Your task to perform on an android device: open app "Expedia: Hotels, Flights & Car" Image 0: 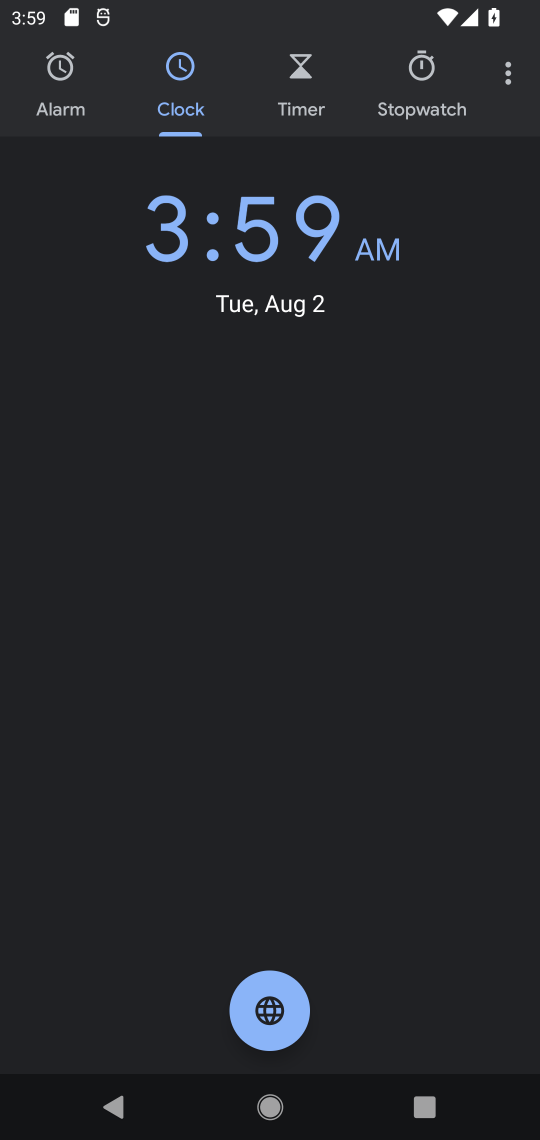
Step 0: press home button
Your task to perform on an android device: open app "Expedia: Hotels, Flights & Car" Image 1: 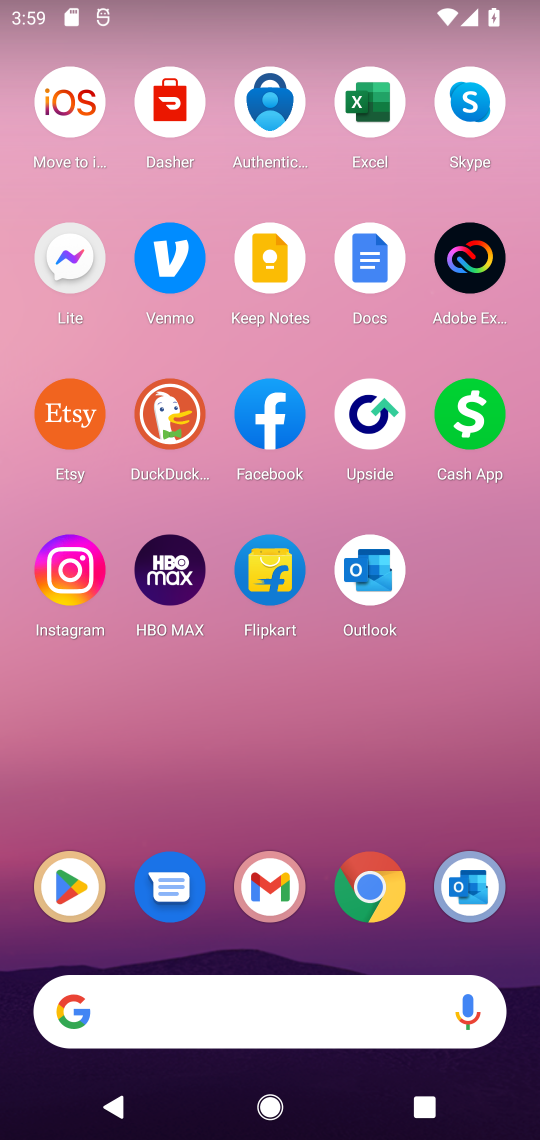
Step 1: click (54, 891)
Your task to perform on an android device: open app "Expedia: Hotels, Flights & Car" Image 2: 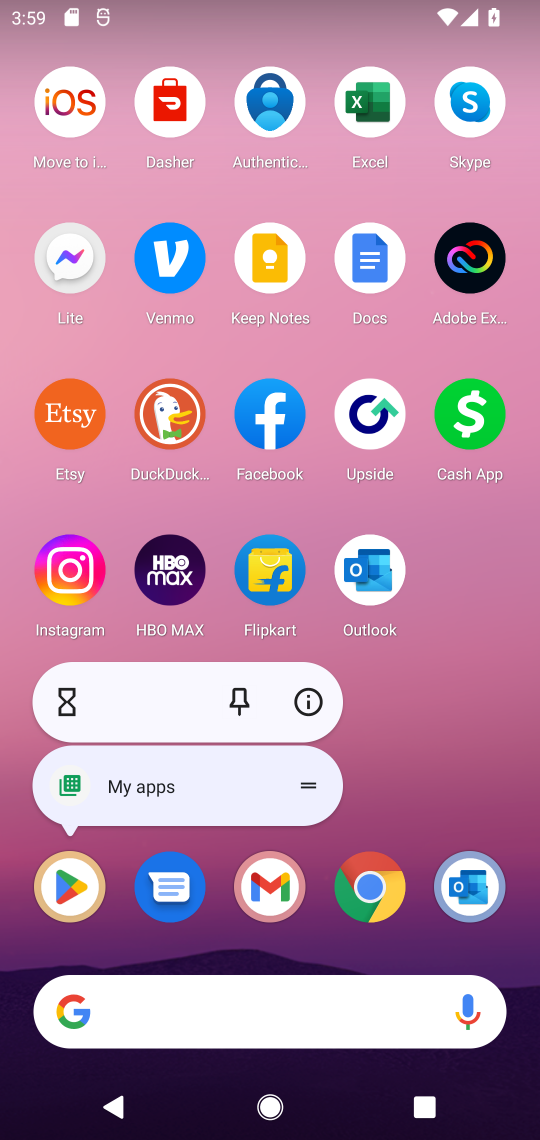
Step 2: click (65, 868)
Your task to perform on an android device: open app "Expedia: Hotels, Flights & Car" Image 3: 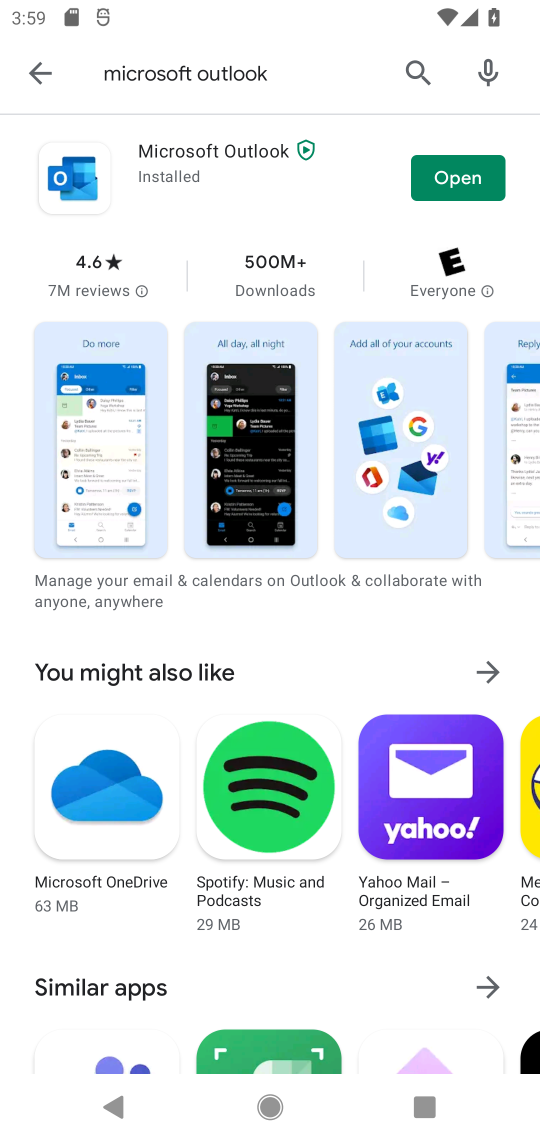
Step 3: click (45, 72)
Your task to perform on an android device: open app "Expedia: Hotels, Flights & Car" Image 4: 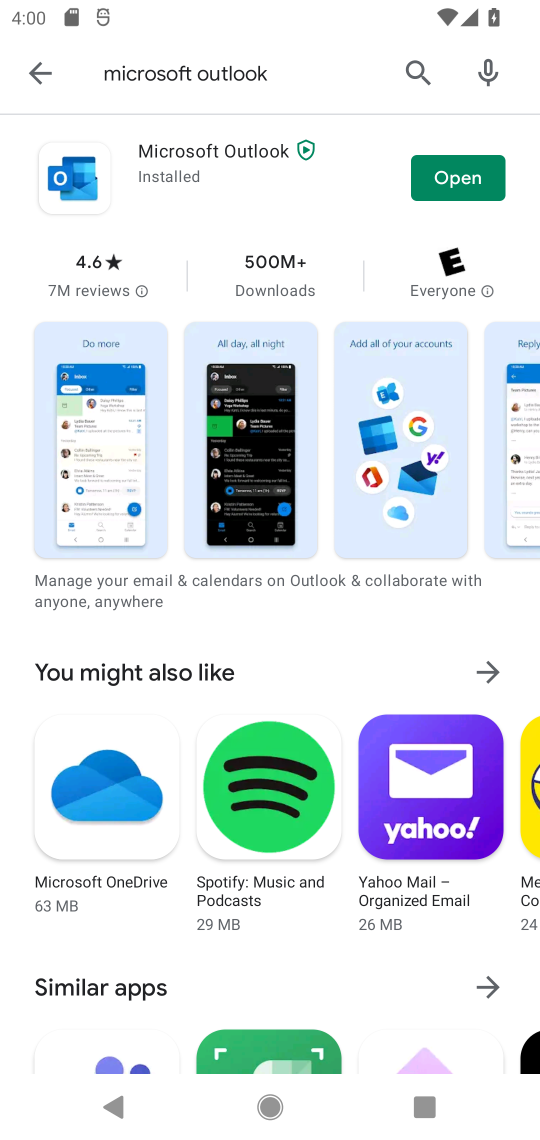
Step 4: click (38, 68)
Your task to perform on an android device: open app "Expedia: Hotels, Flights & Car" Image 5: 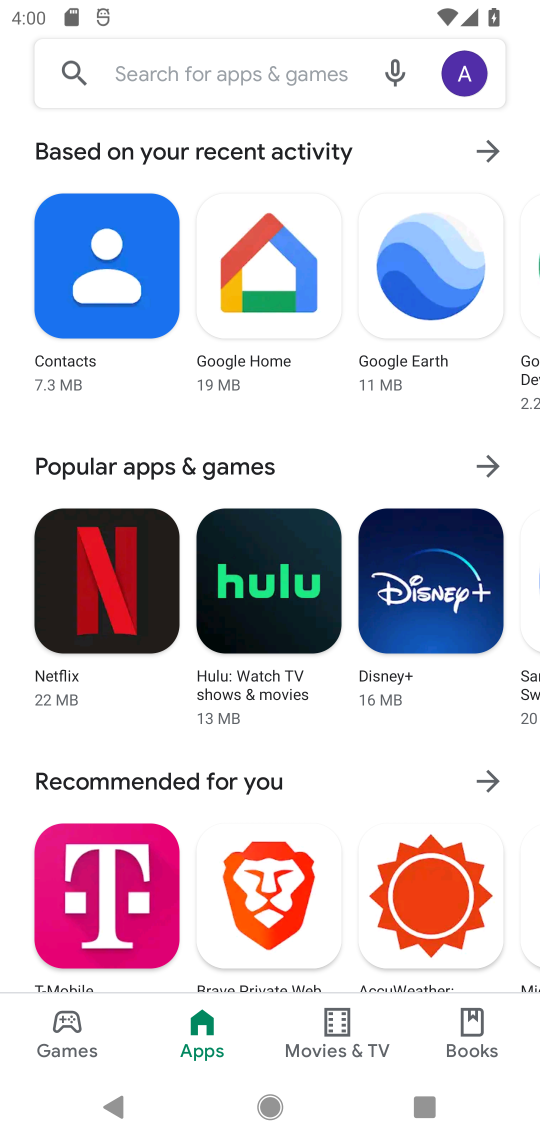
Step 5: click (161, 72)
Your task to perform on an android device: open app "Expedia: Hotels, Flights & Car" Image 6: 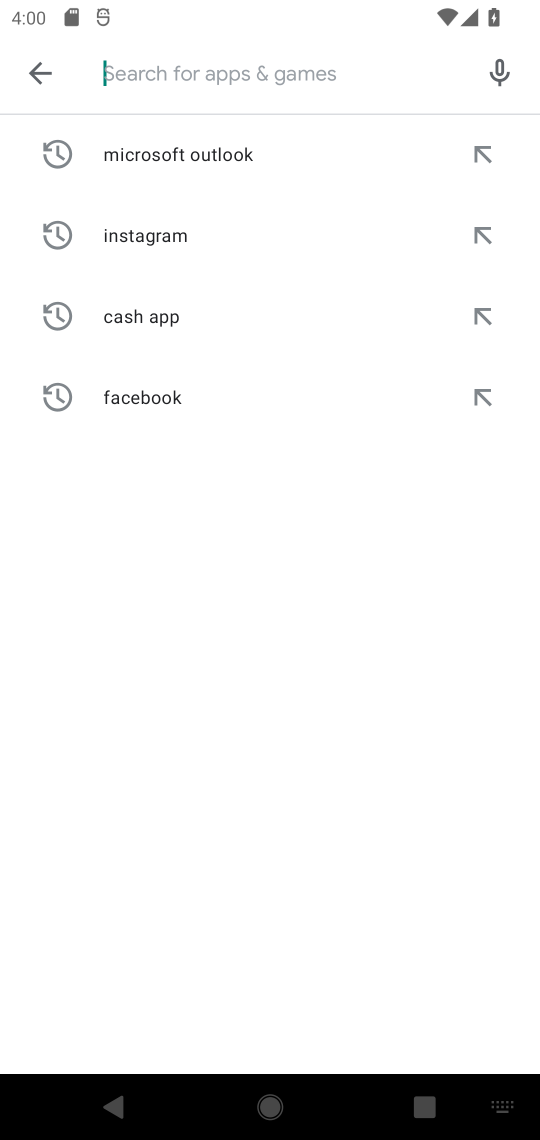
Step 6: type "Expedia: Hotels, Flights & Car"
Your task to perform on an android device: open app "Expedia: Hotels, Flights & Car" Image 7: 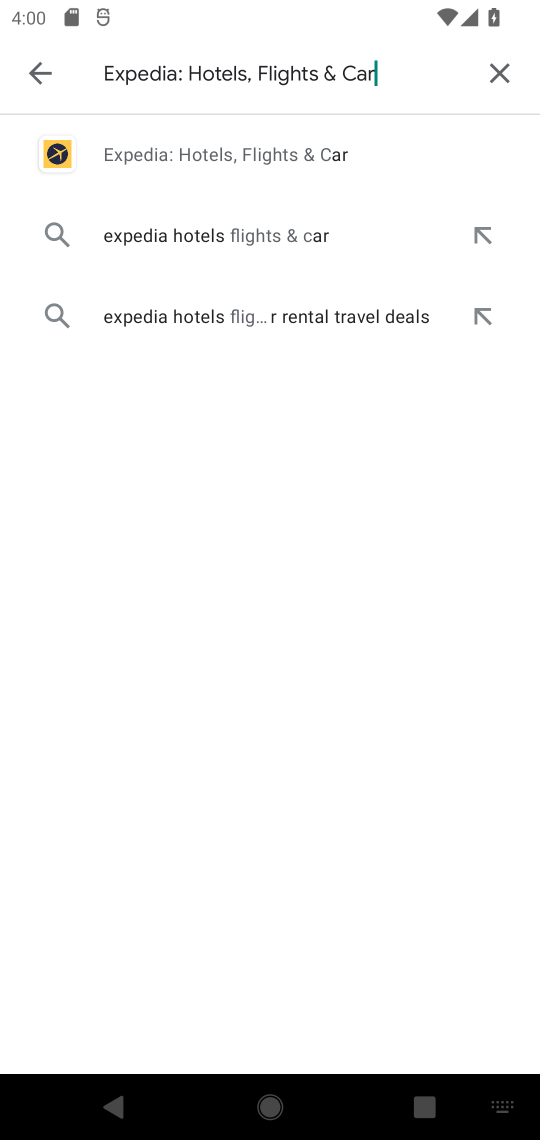
Step 7: type ""
Your task to perform on an android device: open app "Expedia: Hotels, Flights & Car" Image 8: 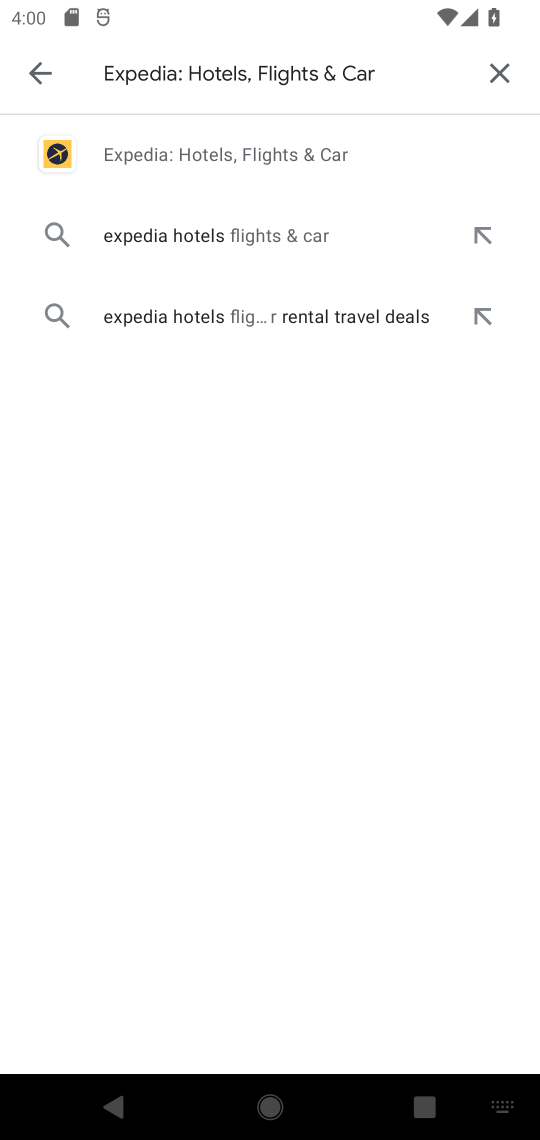
Step 8: click (169, 148)
Your task to perform on an android device: open app "Expedia: Hotels, Flights & Car" Image 9: 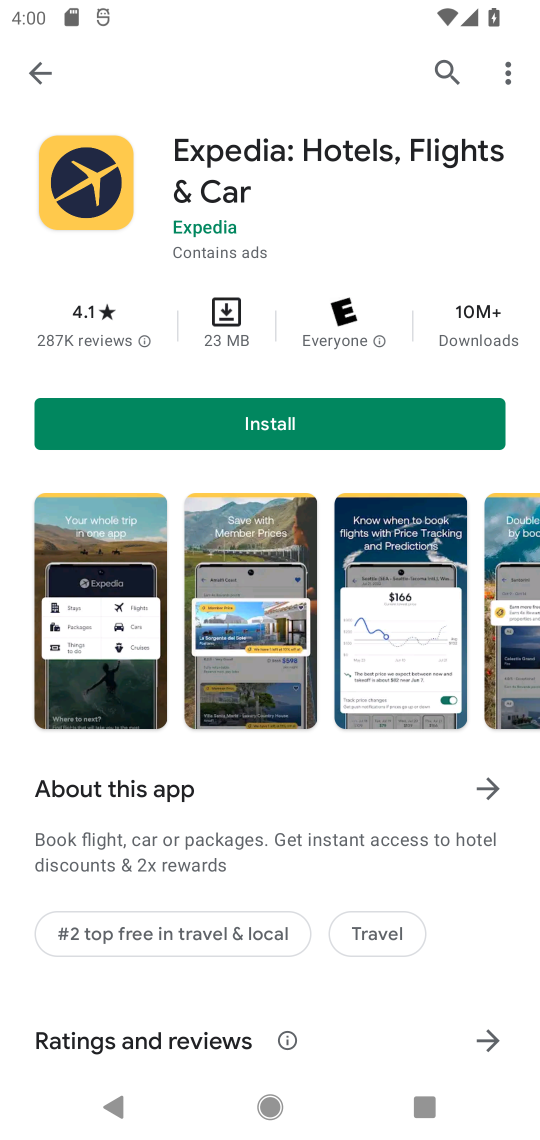
Step 9: task complete